Your task to perform on an android device: set an alarm Image 0: 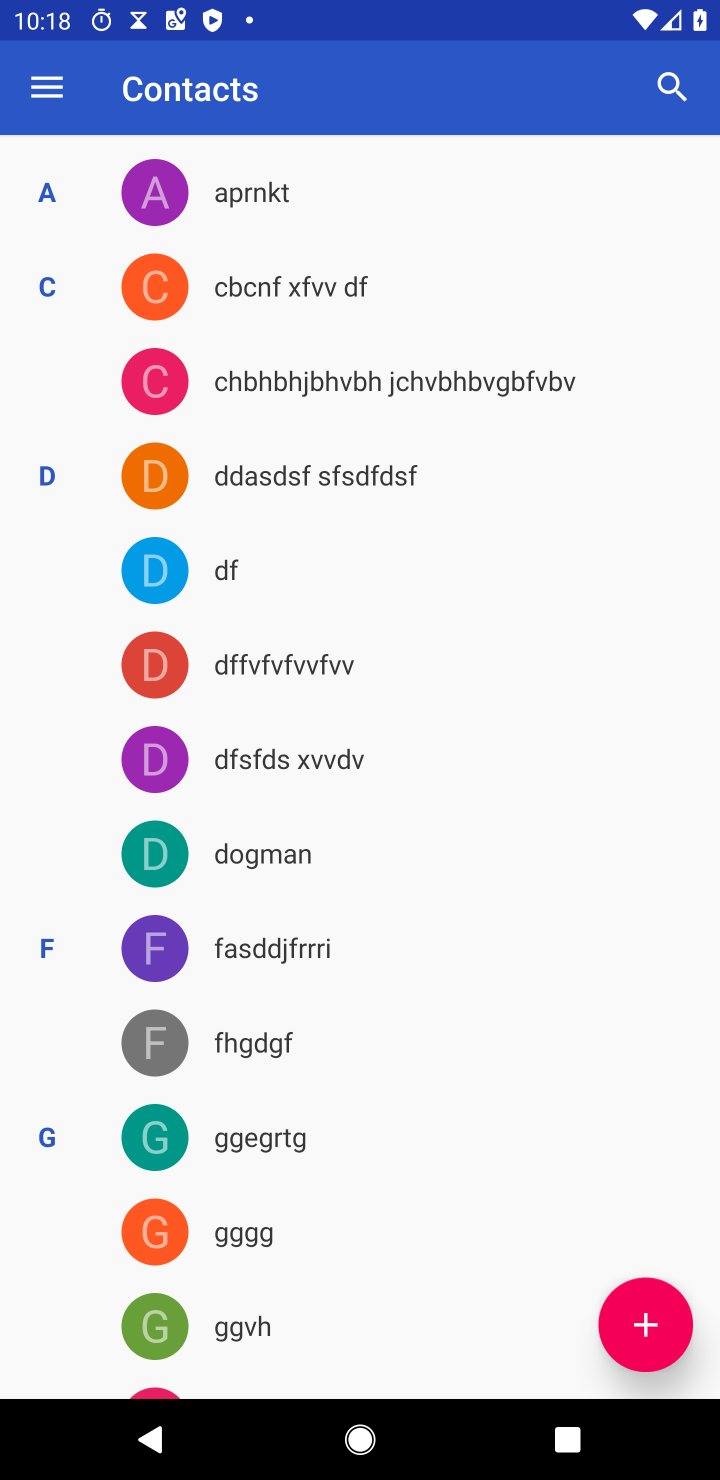
Step 0: press home button
Your task to perform on an android device: set an alarm Image 1: 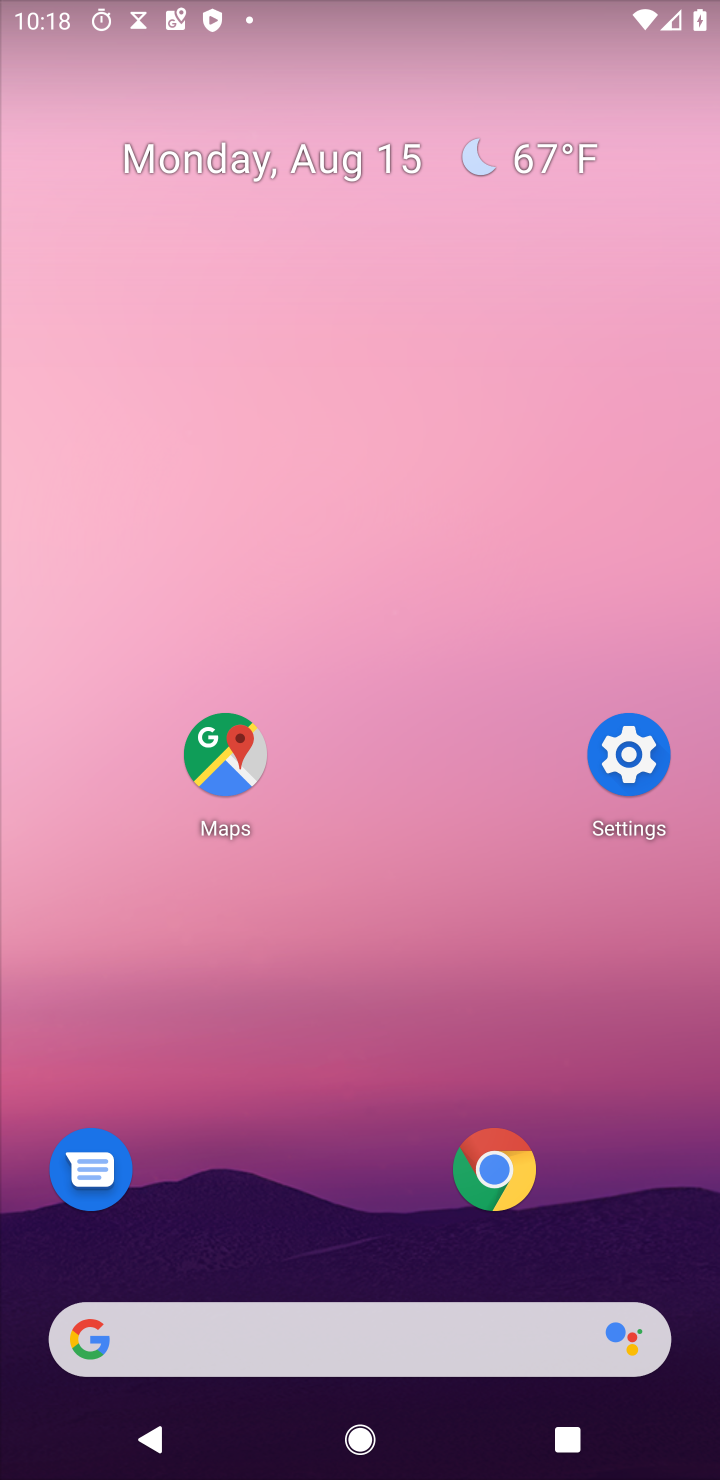
Step 1: drag from (346, 1333) to (570, 341)
Your task to perform on an android device: set an alarm Image 2: 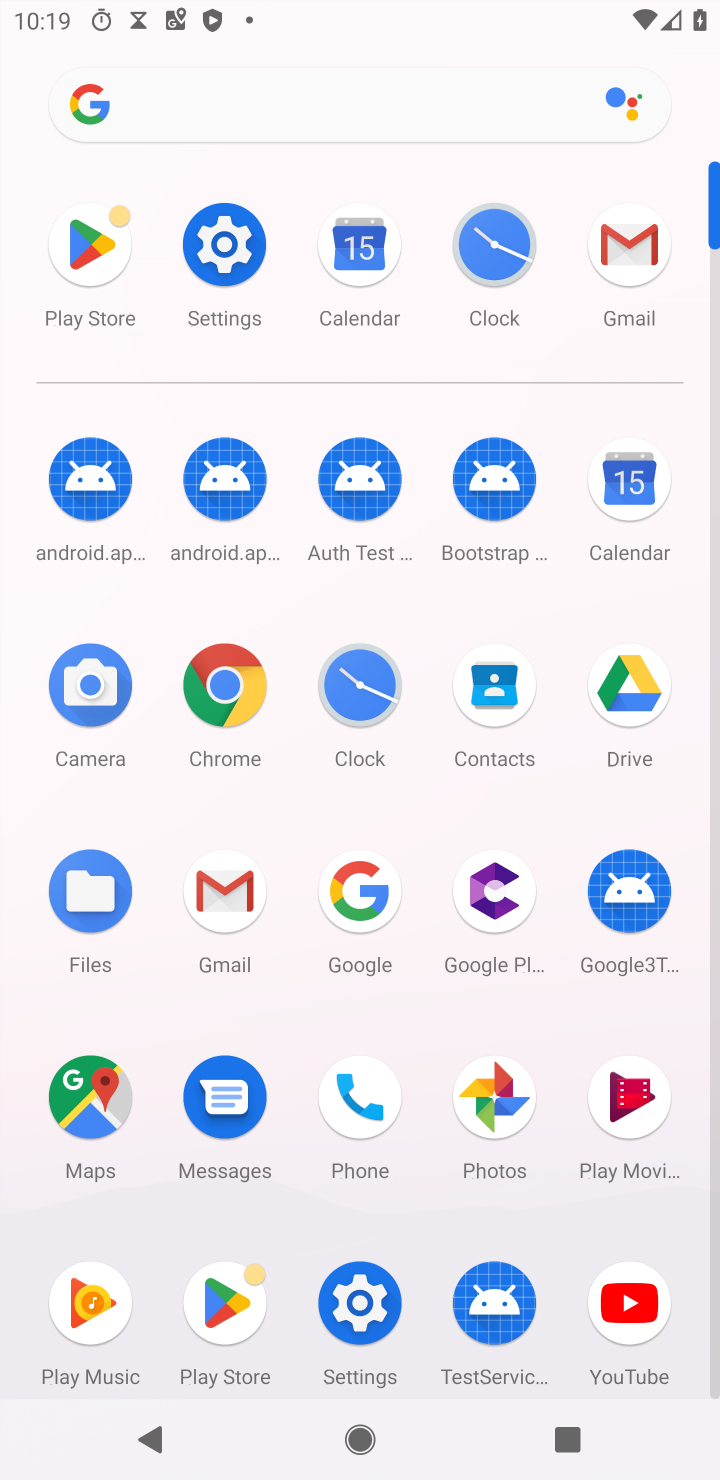
Step 2: click (496, 267)
Your task to perform on an android device: set an alarm Image 3: 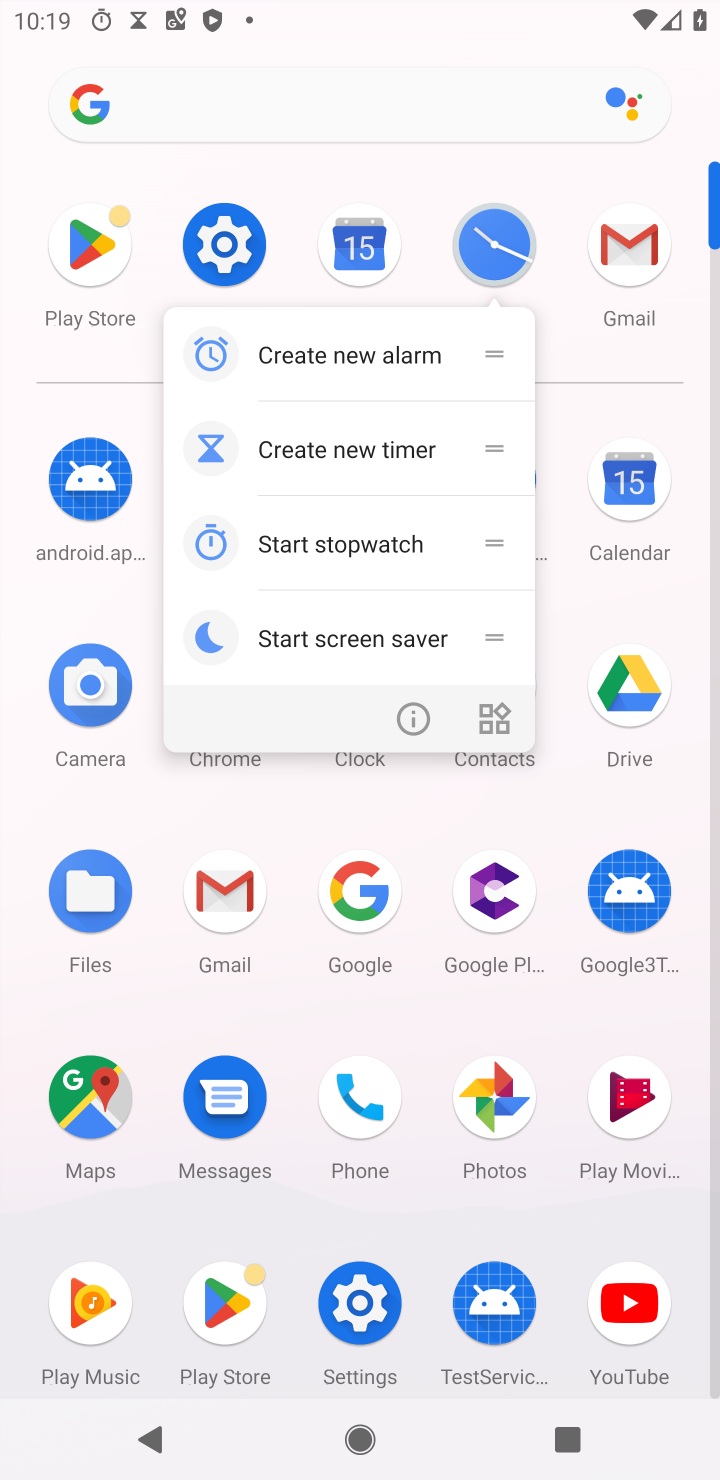
Step 3: click (496, 249)
Your task to perform on an android device: set an alarm Image 4: 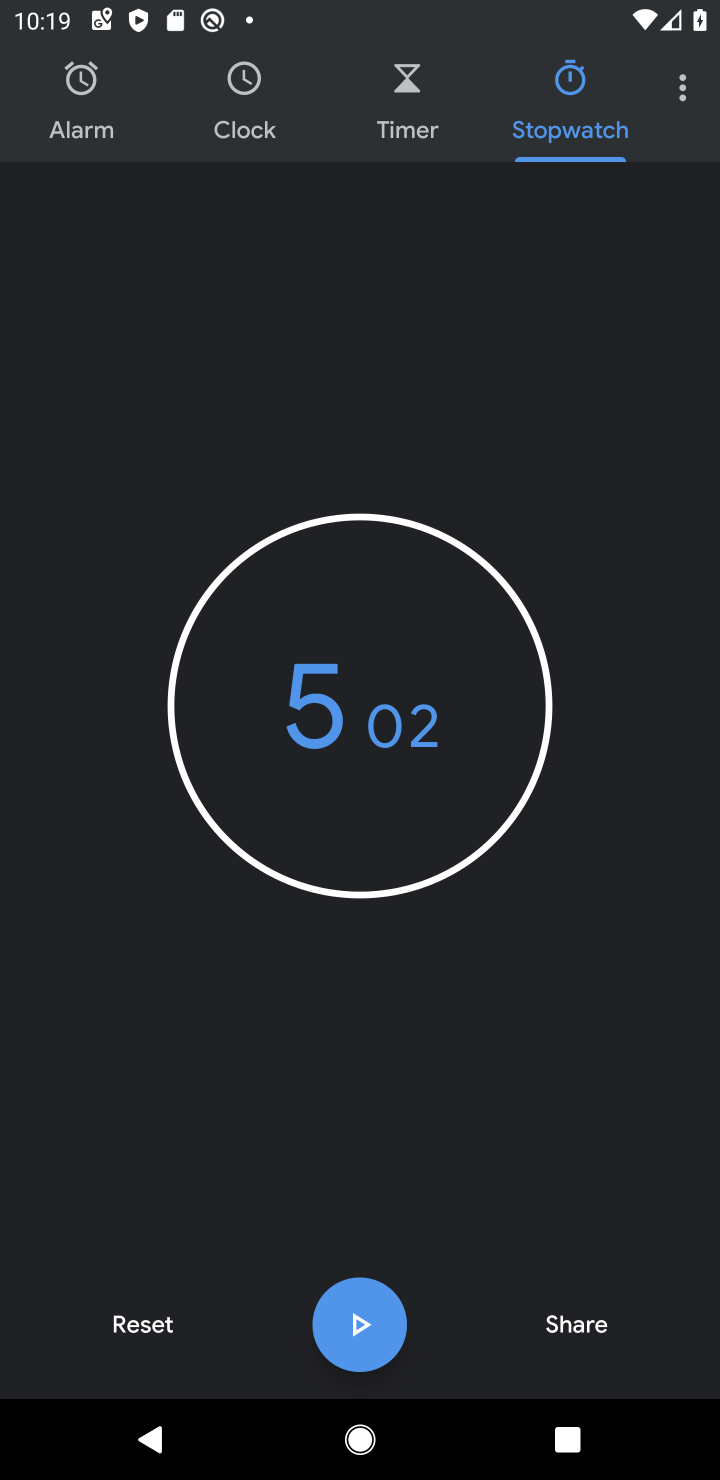
Step 4: click (85, 121)
Your task to perform on an android device: set an alarm Image 5: 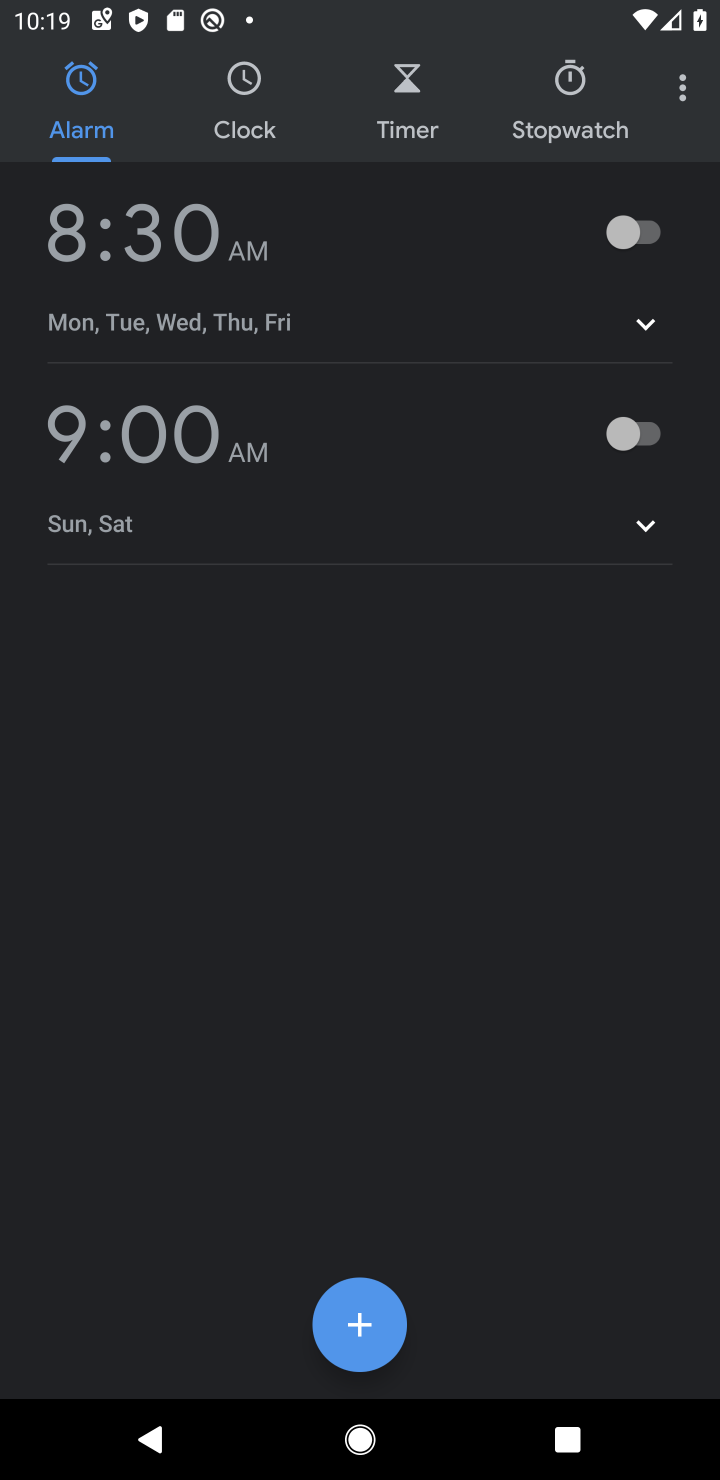
Step 5: click (636, 235)
Your task to perform on an android device: set an alarm Image 6: 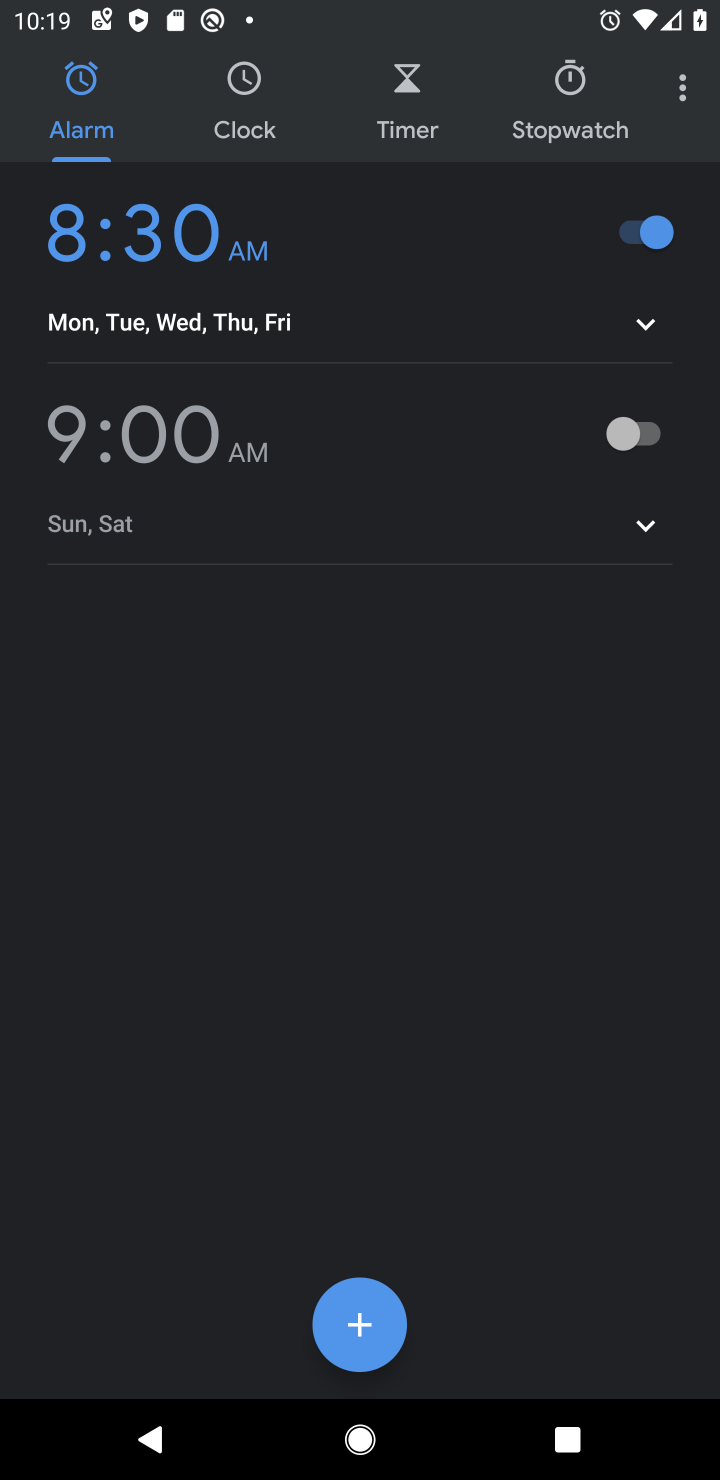
Step 6: task complete